Your task to perform on an android device: Open maps Image 0: 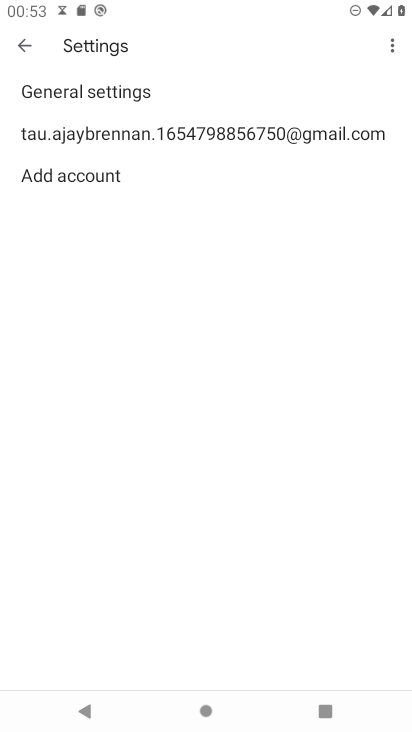
Step 0: press home button
Your task to perform on an android device: Open maps Image 1: 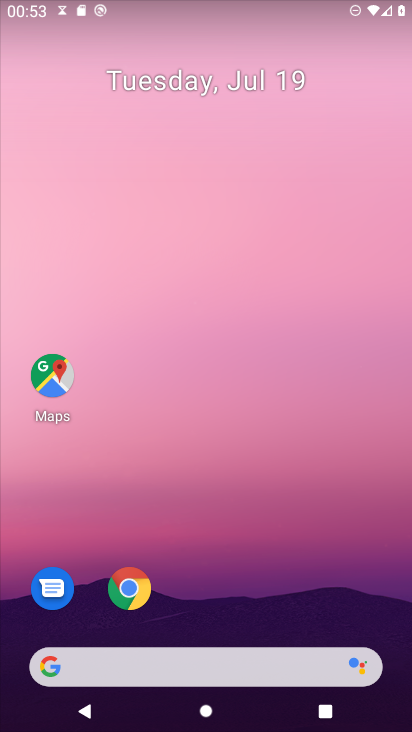
Step 1: click (51, 372)
Your task to perform on an android device: Open maps Image 2: 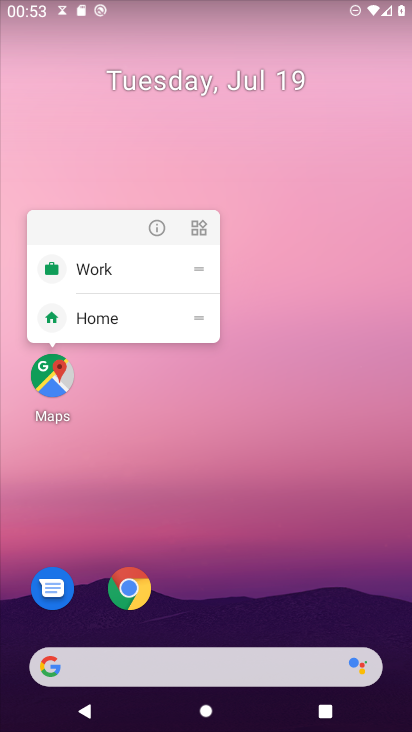
Step 2: click (44, 377)
Your task to perform on an android device: Open maps Image 3: 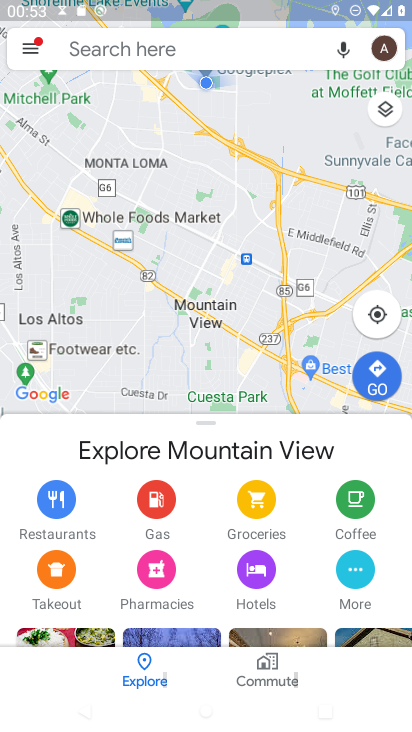
Step 3: task complete